Your task to perform on an android device: change text size in settings app Image 0: 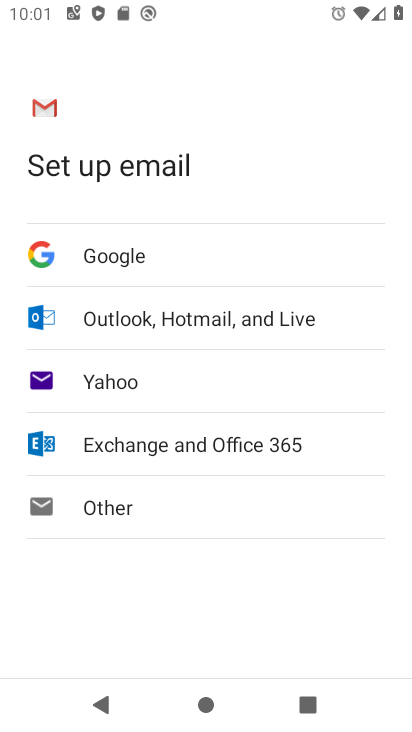
Step 0: press home button
Your task to perform on an android device: change text size in settings app Image 1: 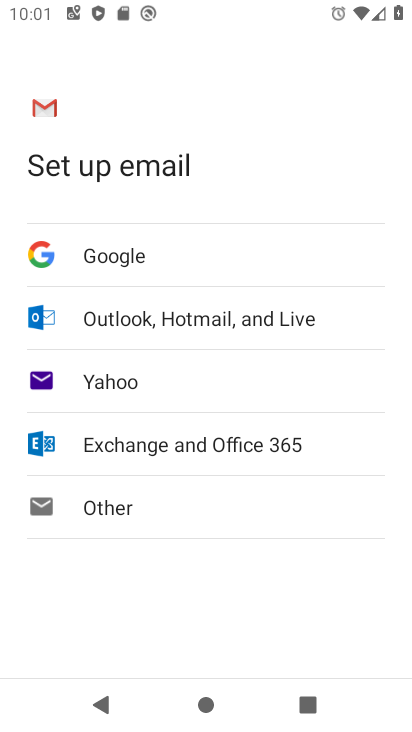
Step 1: press home button
Your task to perform on an android device: change text size in settings app Image 2: 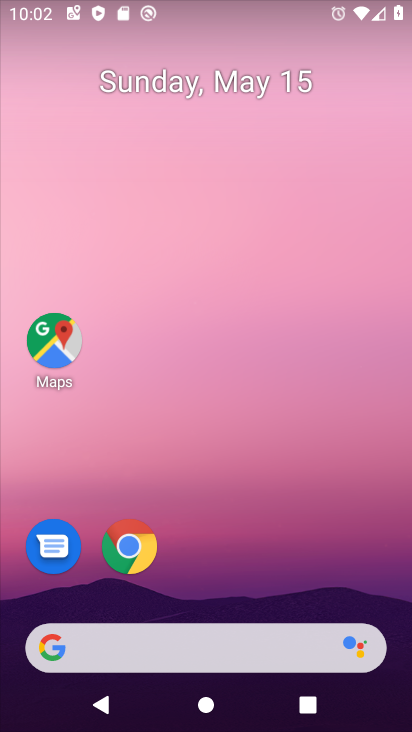
Step 2: drag from (363, 537) to (374, 115)
Your task to perform on an android device: change text size in settings app Image 3: 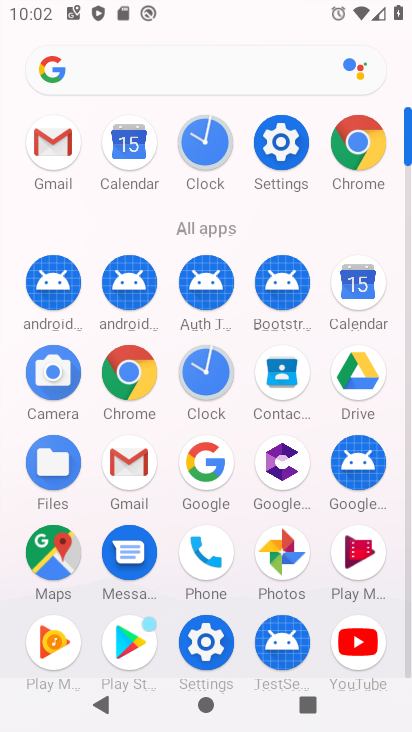
Step 3: click (270, 276)
Your task to perform on an android device: change text size in settings app Image 4: 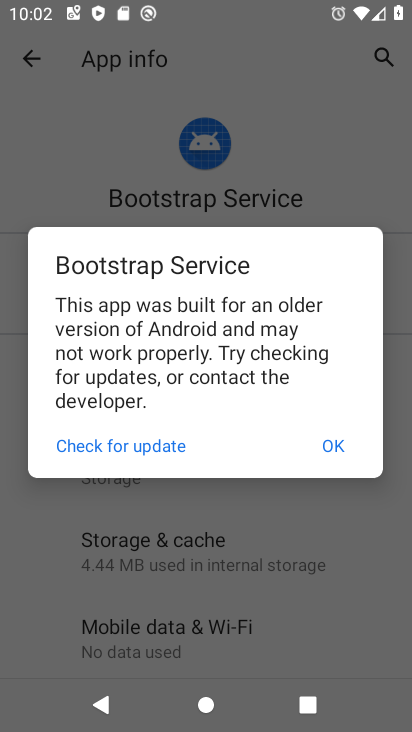
Step 4: press home button
Your task to perform on an android device: change text size in settings app Image 5: 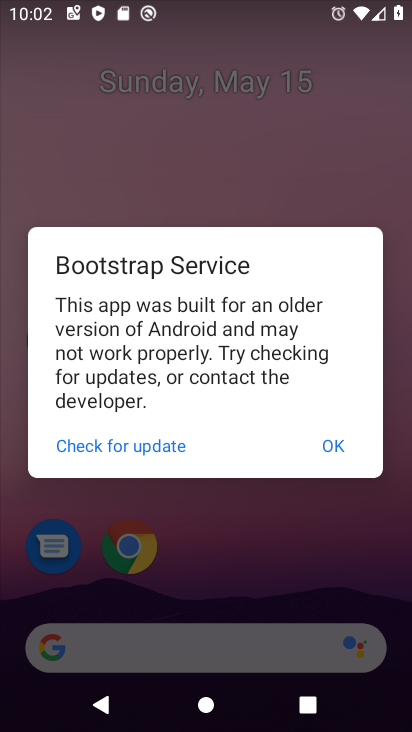
Step 5: click (315, 439)
Your task to perform on an android device: change text size in settings app Image 6: 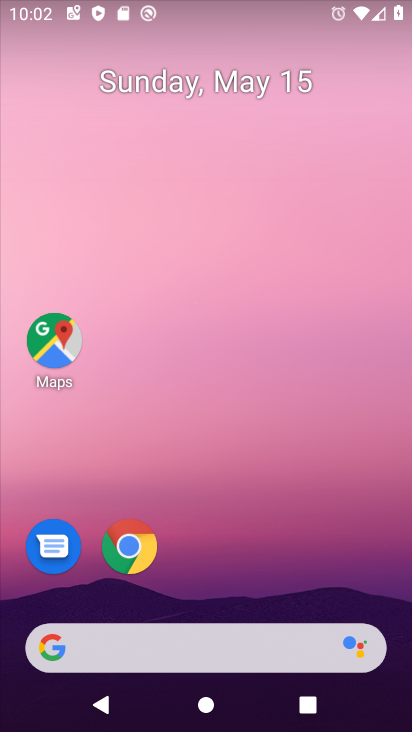
Step 6: drag from (298, 506) to (307, 102)
Your task to perform on an android device: change text size in settings app Image 7: 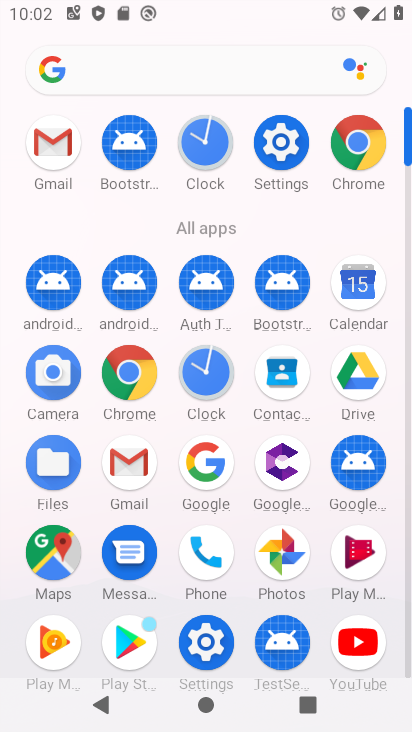
Step 7: click (290, 125)
Your task to perform on an android device: change text size in settings app Image 8: 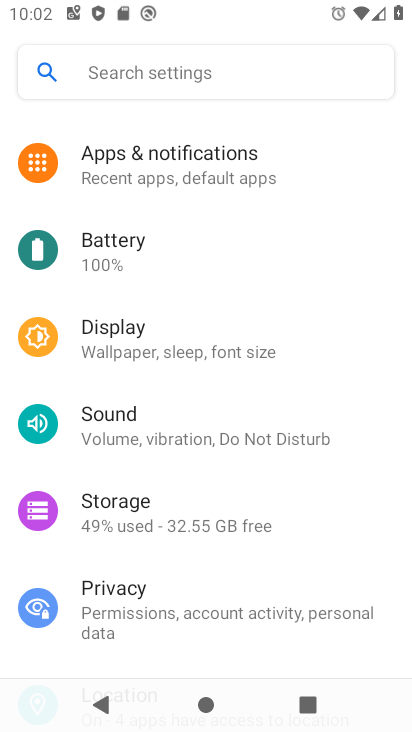
Step 8: click (182, 362)
Your task to perform on an android device: change text size in settings app Image 9: 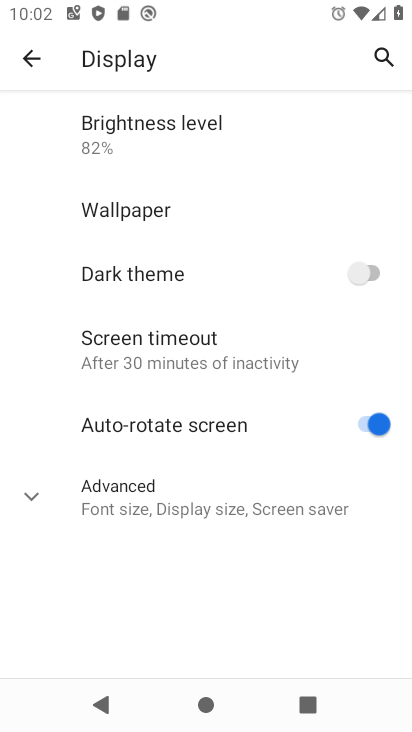
Step 9: click (158, 511)
Your task to perform on an android device: change text size in settings app Image 10: 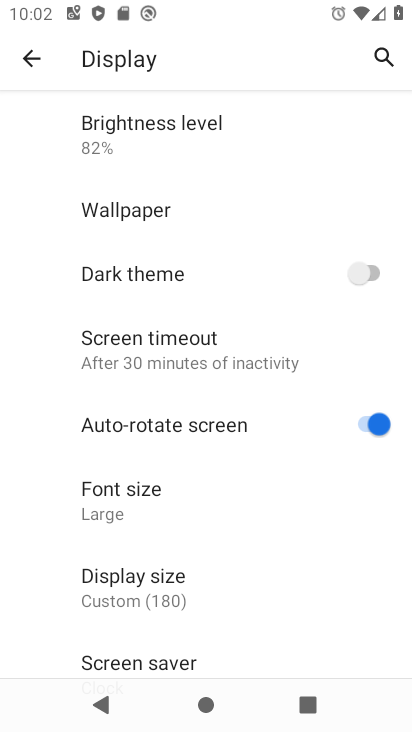
Step 10: click (109, 494)
Your task to perform on an android device: change text size in settings app Image 11: 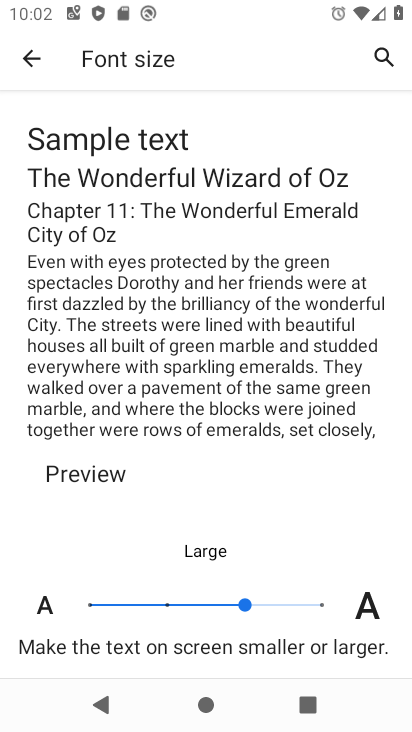
Step 11: click (120, 593)
Your task to perform on an android device: change text size in settings app Image 12: 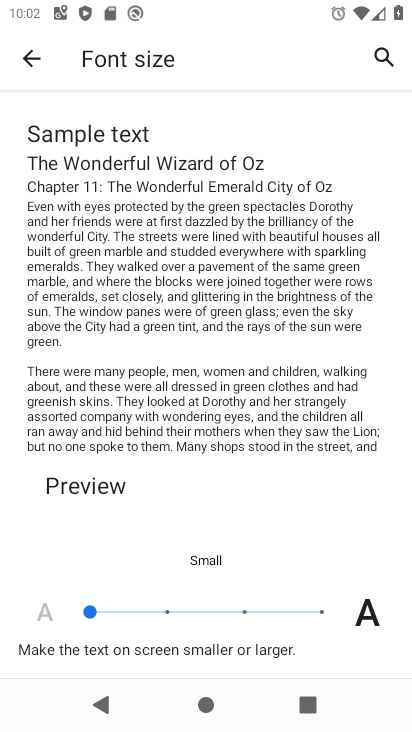
Step 12: task complete